Your task to perform on an android device: read, delete, or share a saved page in the chrome app Image 0: 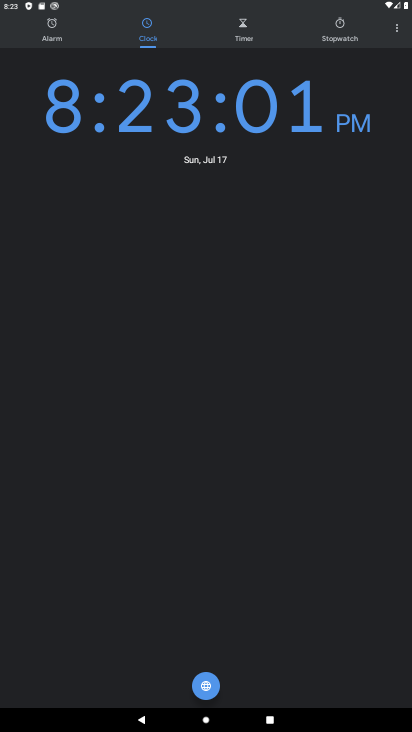
Step 0: press home button
Your task to perform on an android device: read, delete, or share a saved page in the chrome app Image 1: 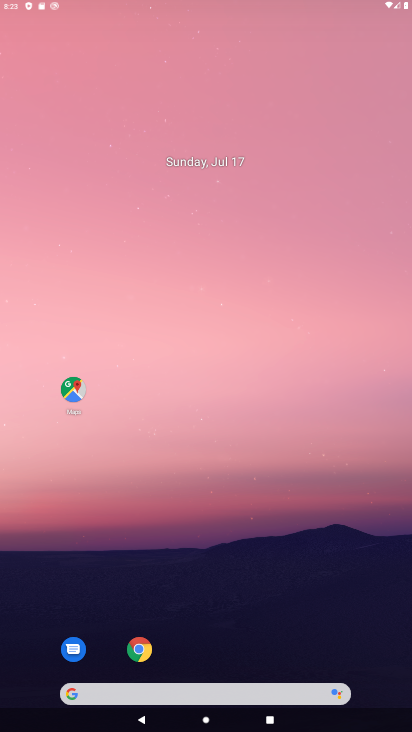
Step 1: drag from (228, 679) to (256, 57)
Your task to perform on an android device: read, delete, or share a saved page in the chrome app Image 2: 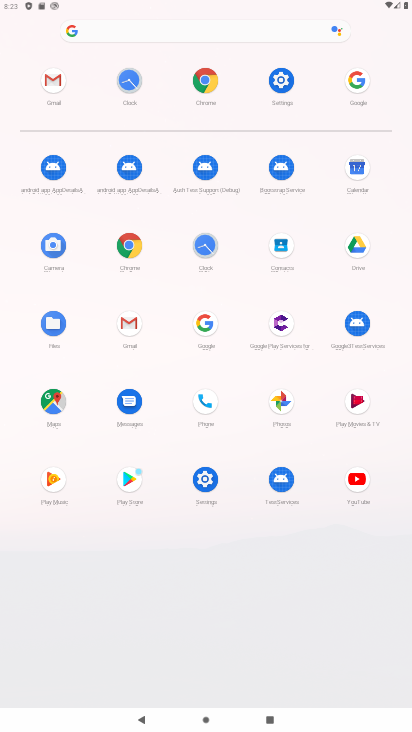
Step 2: click (125, 246)
Your task to perform on an android device: read, delete, or share a saved page in the chrome app Image 3: 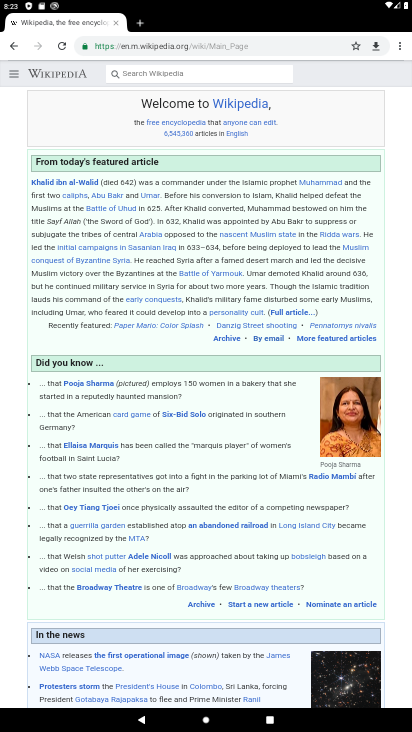
Step 3: click (393, 42)
Your task to perform on an android device: read, delete, or share a saved page in the chrome app Image 4: 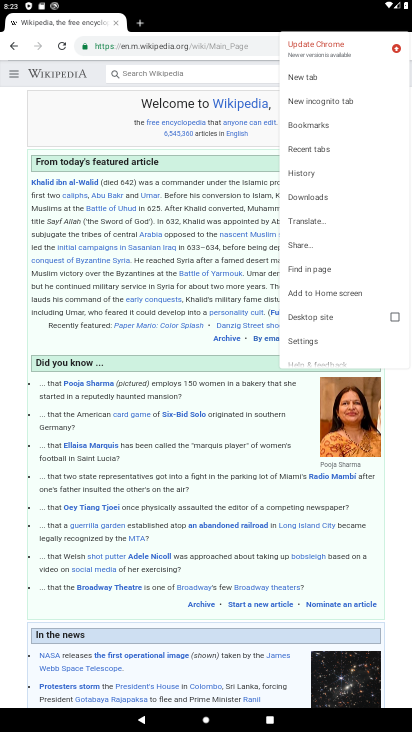
Step 4: click (310, 196)
Your task to perform on an android device: read, delete, or share a saved page in the chrome app Image 5: 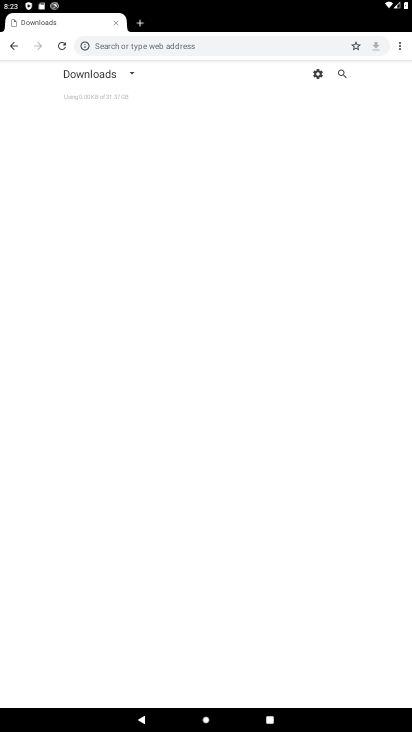
Step 5: task complete